Your task to perform on an android device: Search for Italian restaurants on Maps Image 0: 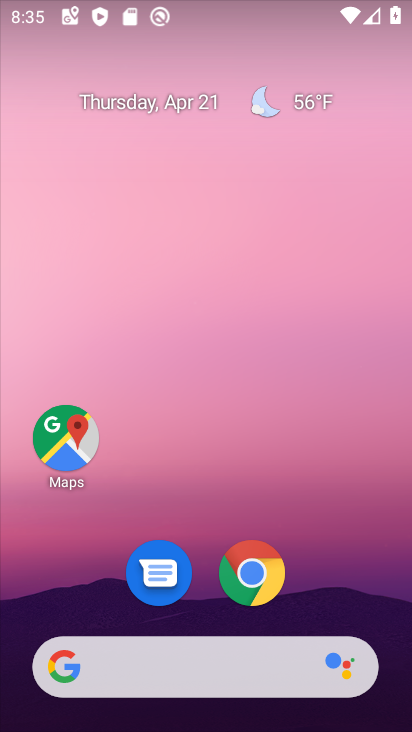
Step 0: click (78, 444)
Your task to perform on an android device: Search for Italian restaurants on Maps Image 1: 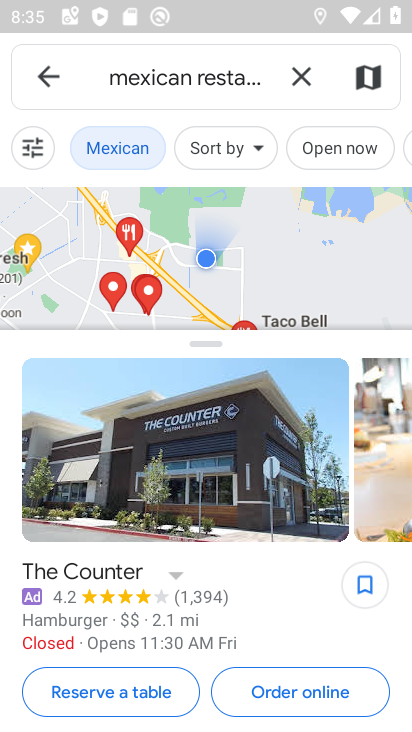
Step 1: click (301, 65)
Your task to perform on an android device: Search for Italian restaurants on Maps Image 2: 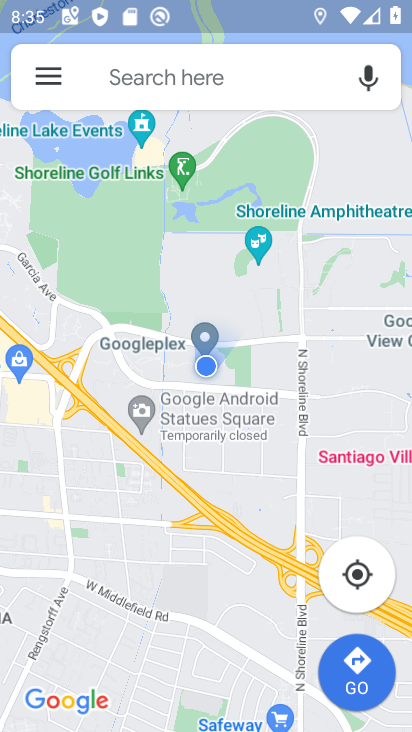
Step 2: click (188, 87)
Your task to perform on an android device: Search for Italian restaurants on Maps Image 3: 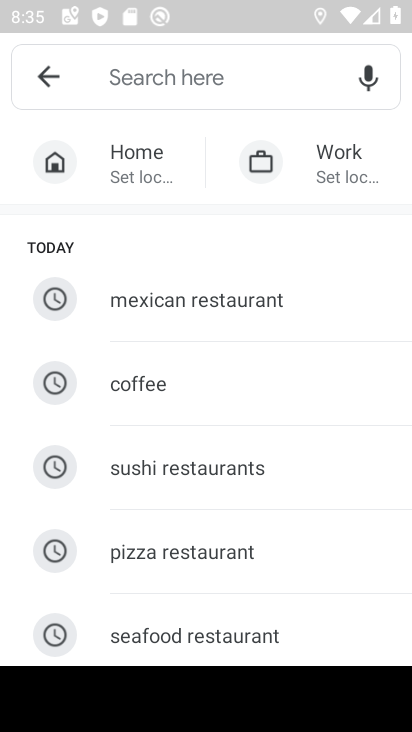
Step 3: type "italian restaurants"
Your task to perform on an android device: Search for Italian restaurants on Maps Image 4: 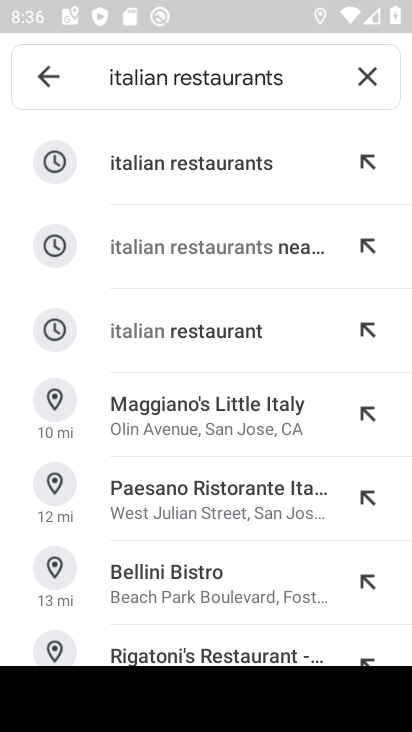
Step 4: click (209, 159)
Your task to perform on an android device: Search for Italian restaurants on Maps Image 5: 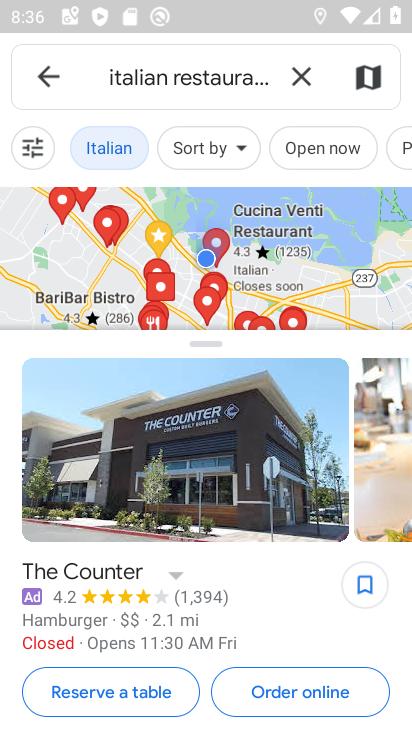
Step 5: task complete